Your task to perform on an android device: open app "DuckDuckGo Privacy Browser" (install if not already installed) and enter user name: "cleaving@outlook.com" and password: "freighters" Image 0: 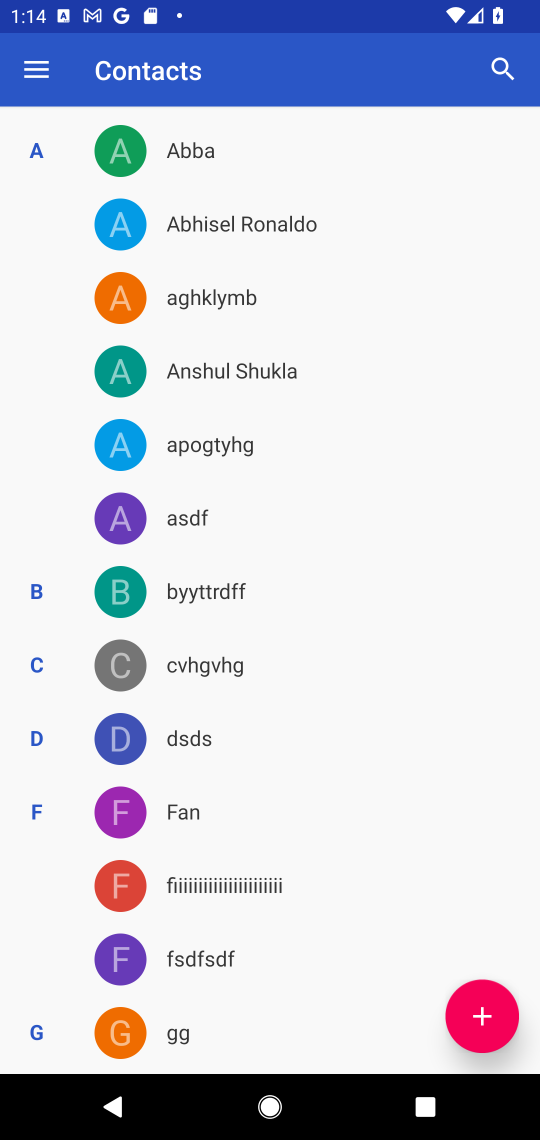
Step 0: press home button
Your task to perform on an android device: open app "DuckDuckGo Privacy Browser" (install if not already installed) and enter user name: "cleaving@outlook.com" and password: "freighters" Image 1: 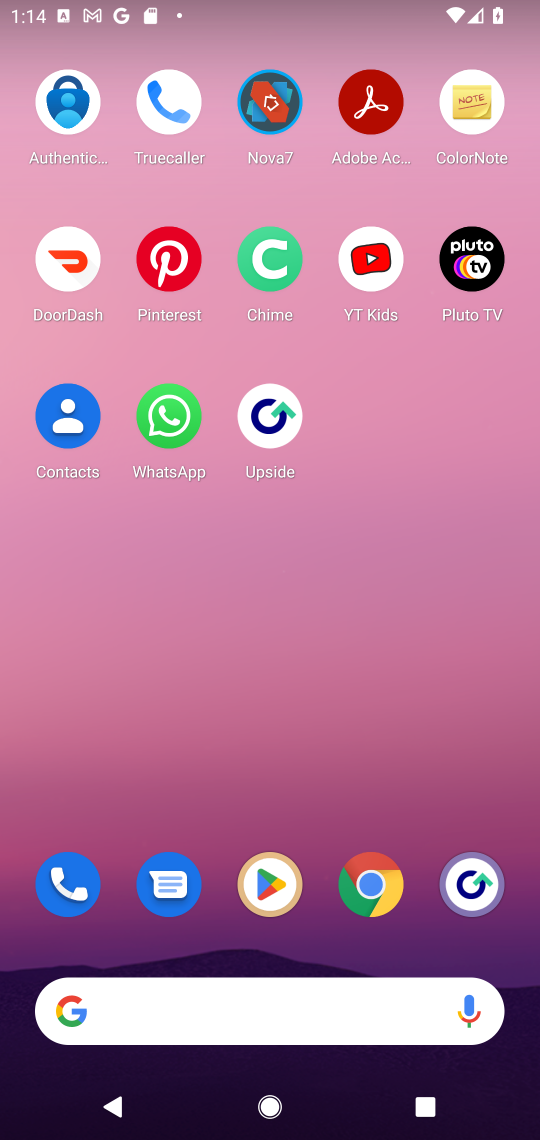
Step 1: drag from (262, 998) to (224, 251)
Your task to perform on an android device: open app "DuckDuckGo Privacy Browser" (install if not already installed) and enter user name: "cleaving@outlook.com" and password: "freighters" Image 2: 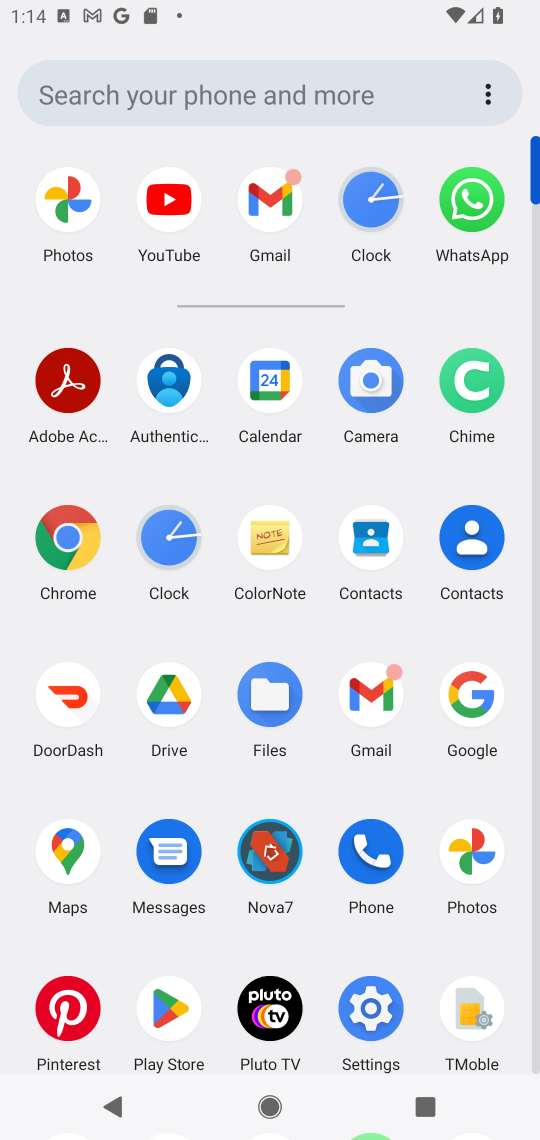
Step 2: click (166, 1007)
Your task to perform on an android device: open app "DuckDuckGo Privacy Browser" (install if not already installed) and enter user name: "cleaving@outlook.com" and password: "freighters" Image 3: 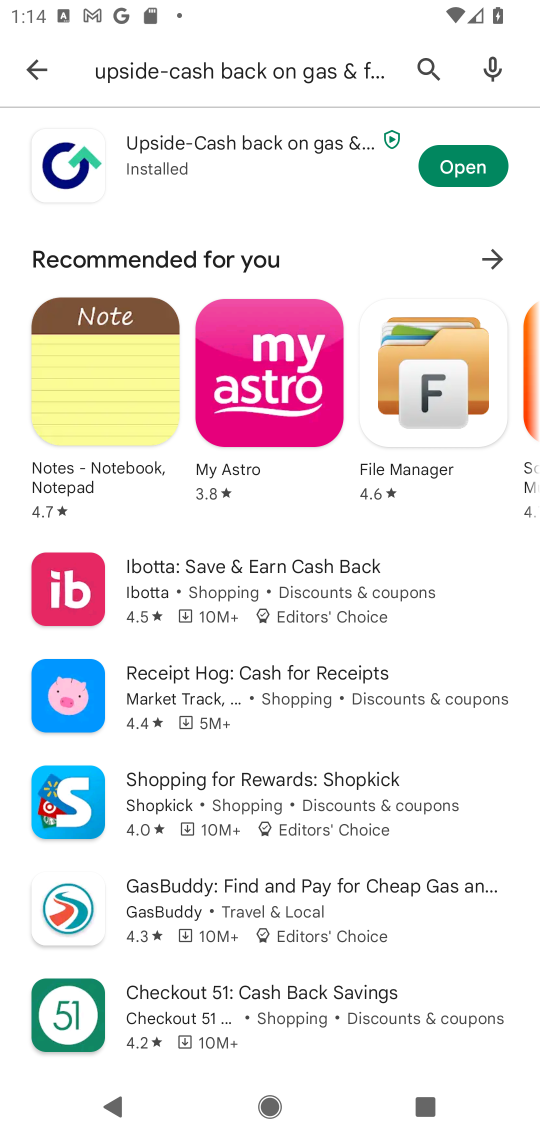
Step 3: press back button
Your task to perform on an android device: open app "DuckDuckGo Privacy Browser" (install if not already installed) and enter user name: "cleaving@outlook.com" and password: "freighters" Image 4: 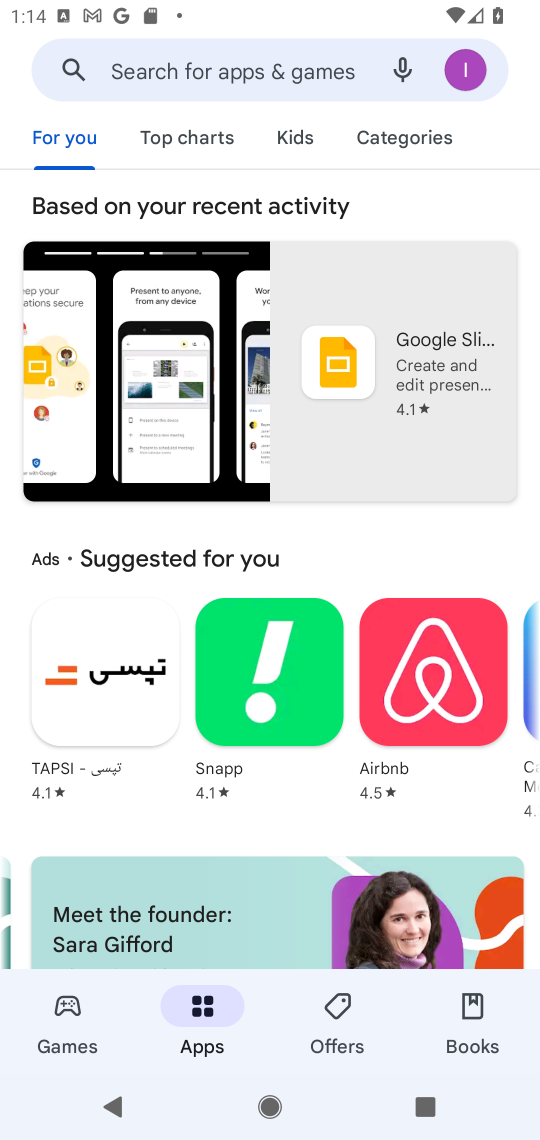
Step 4: click (256, 66)
Your task to perform on an android device: open app "DuckDuckGo Privacy Browser" (install if not already installed) and enter user name: "cleaving@outlook.com" and password: "freighters" Image 5: 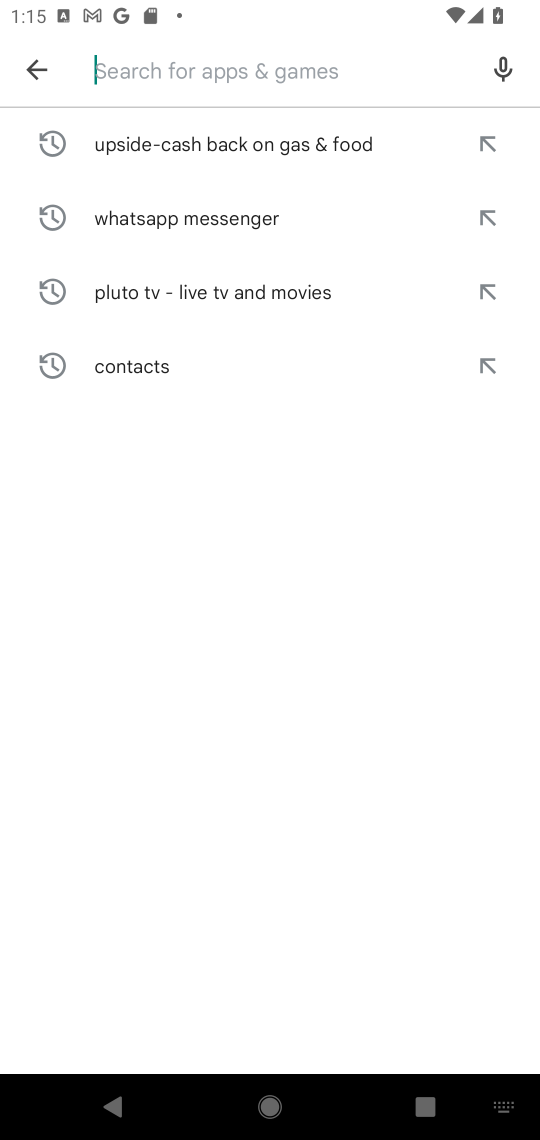
Step 5: type "DuckDuckGo Privacy Browser"
Your task to perform on an android device: open app "DuckDuckGo Privacy Browser" (install if not already installed) and enter user name: "cleaving@outlook.com" and password: "freighters" Image 6: 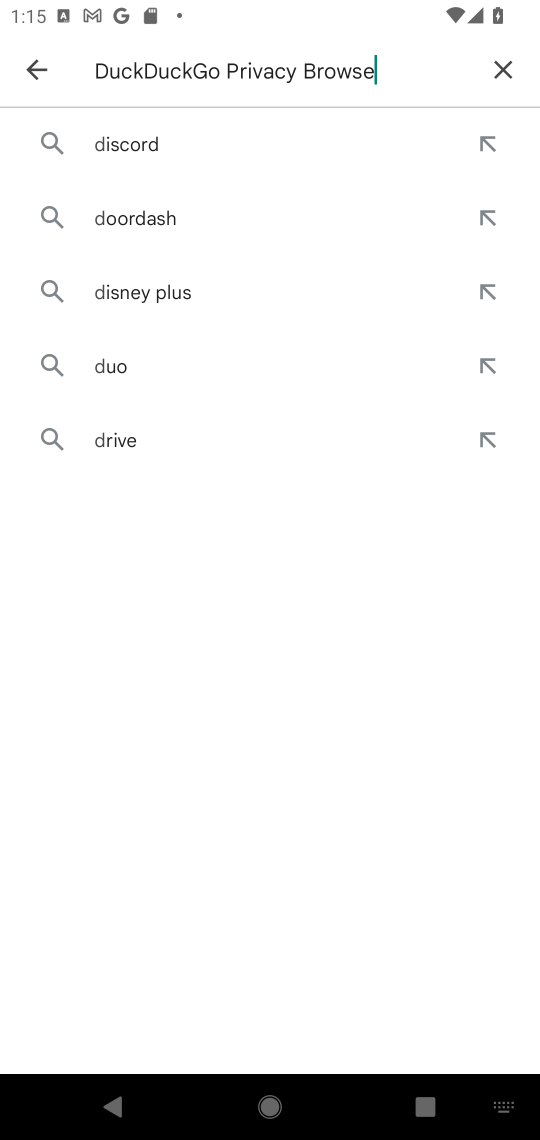
Step 6: type ""
Your task to perform on an android device: open app "DuckDuckGo Privacy Browser" (install if not already installed) and enter user name: "cleaving@outlook.com" and password: "freighters" Image 7: 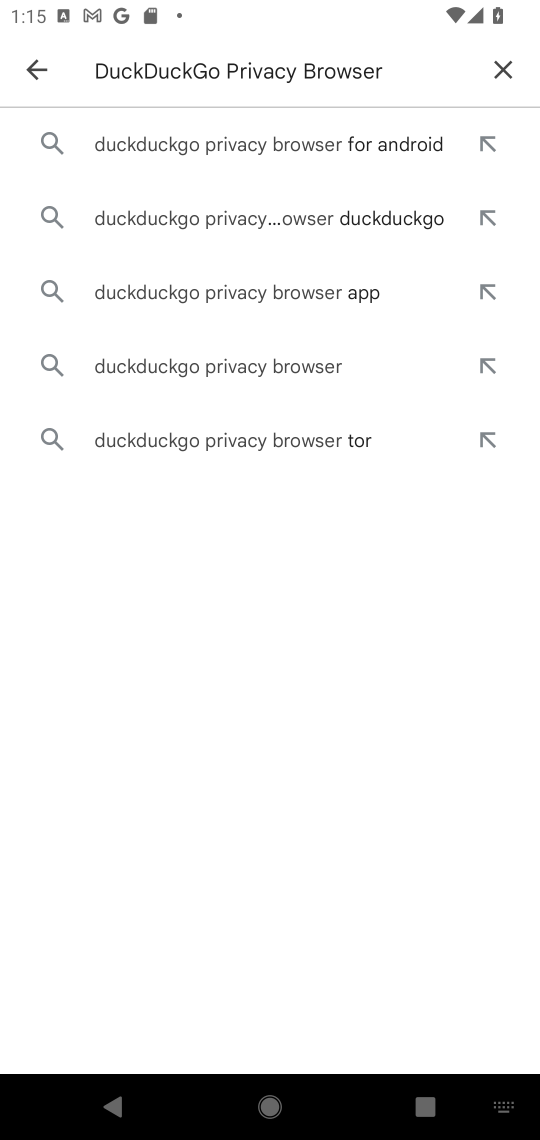
Step 7: click (217, 145)
Your task to perform on an android device: open app "DuckDuckGo Privacy Browser" (install if not already installed) and enter user name: "cleaving@outlook.com" and password: "freighters" Image 8: 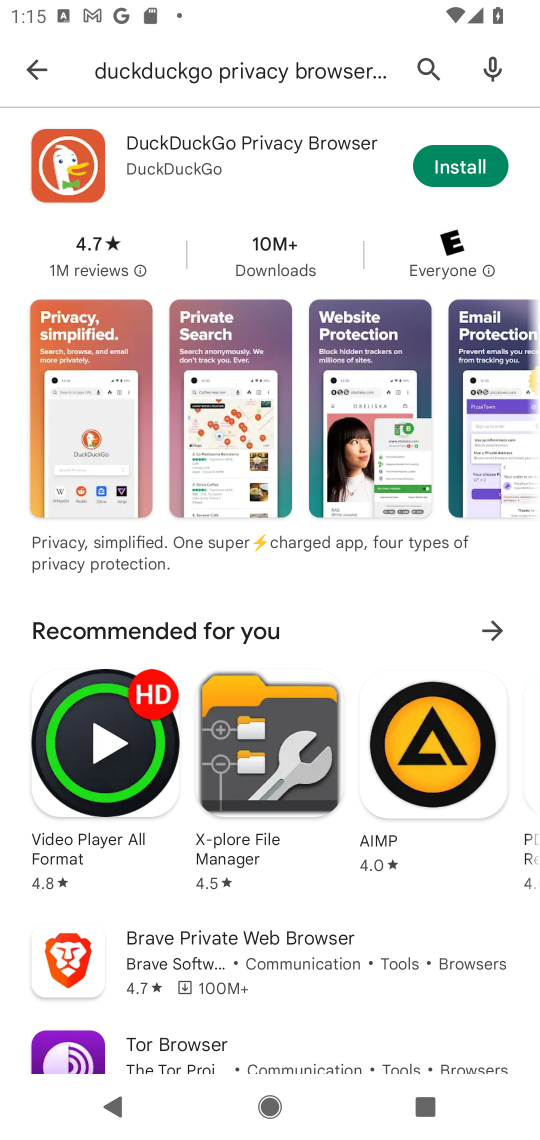
Step 8: click (484, 156)
Your task to perform on an android device: open app "DuckDuckGo Privacy Browser" (install if not already installed) and enter user name: "cleaving@outlook.com" and password: "freighters" Image 9: 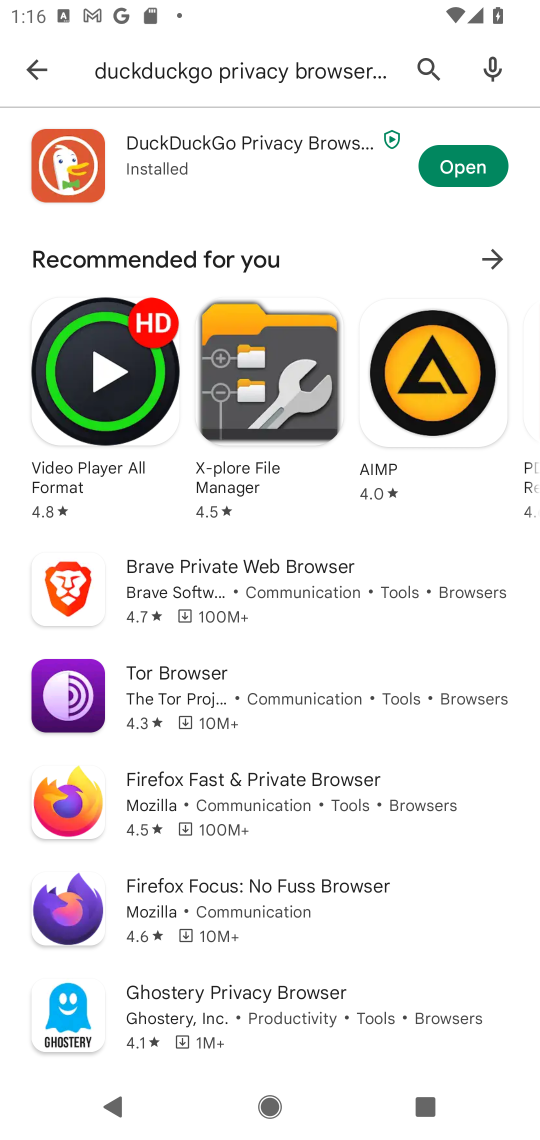
Step 9: click (466, 176)
Your task to perform on an android device: open app "DuckDuckGo Privacy Browser" (install if not already installed) and enter user name: "cleaving@outlook.com" and password: "freighters" Image 10: 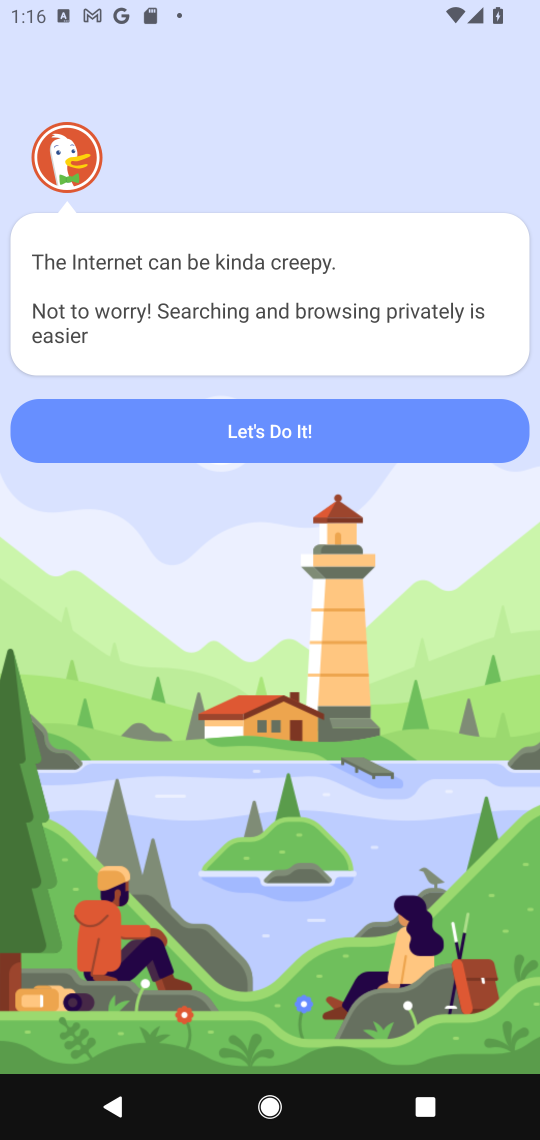
Step 10: click (290, 441)
Your task to perform on an android device: open app "DuckDuckGo Privacy Browser" (install if not already installed) and enter user name: "cleaving@outlook.com" and password: "freighters" Image 11: 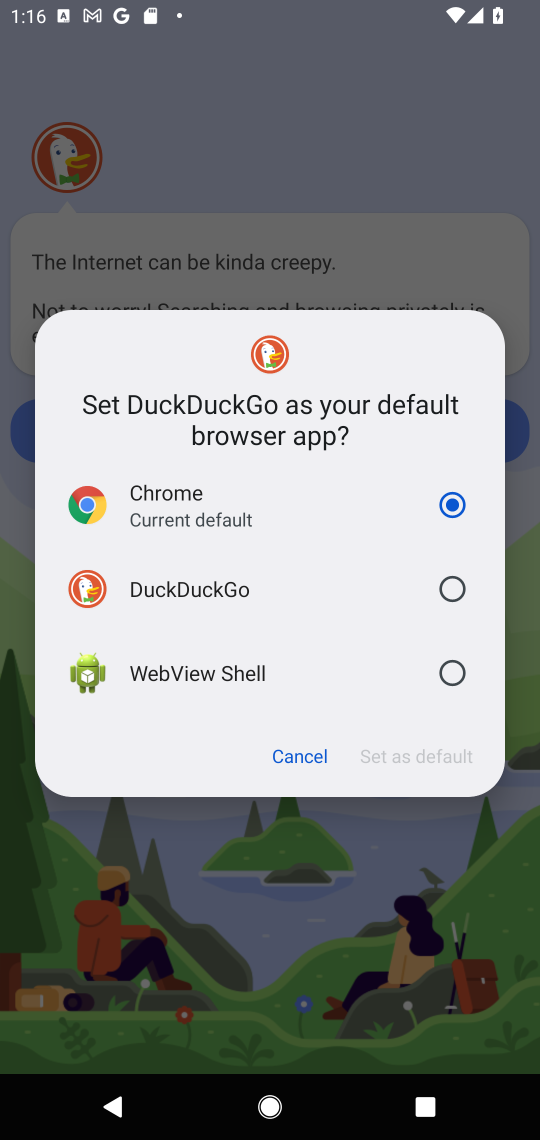
Step 11: click (455, 506)
Your task to perform on an android device: open app "DuckDuckGo Privacy Browser" (install if not already installed) and enter user name: "cleaving@outlook.com" and password: "freighters" Image 12: 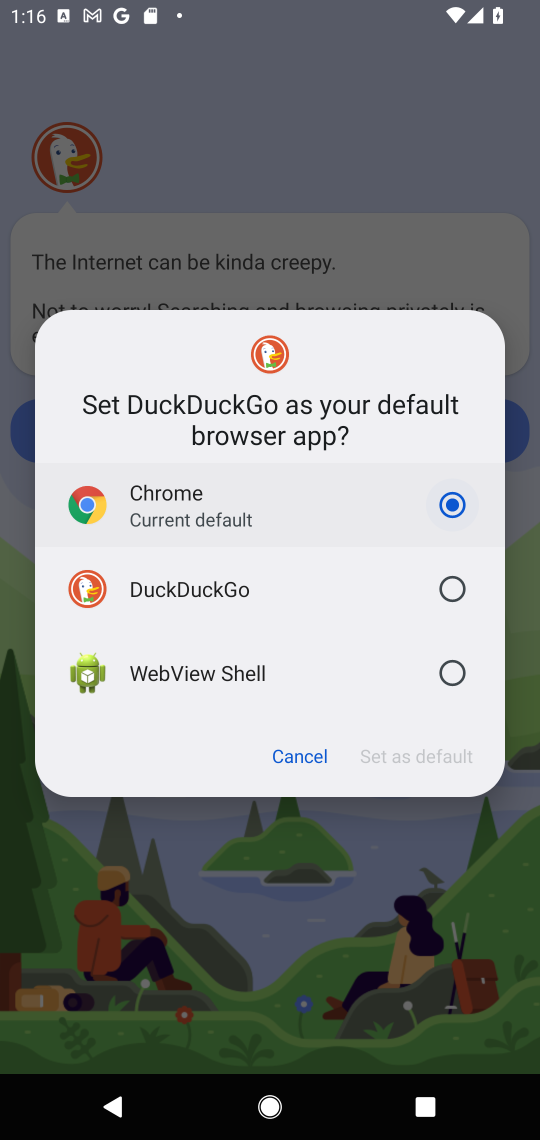
Step 12: click (470, 592)
Your task to perform on an android device: open app "DuckDuckGo Privacy Browser" (install if not already installed) and enter user name: "cleaving@outlook.com" and password: "freighters" Image 13: 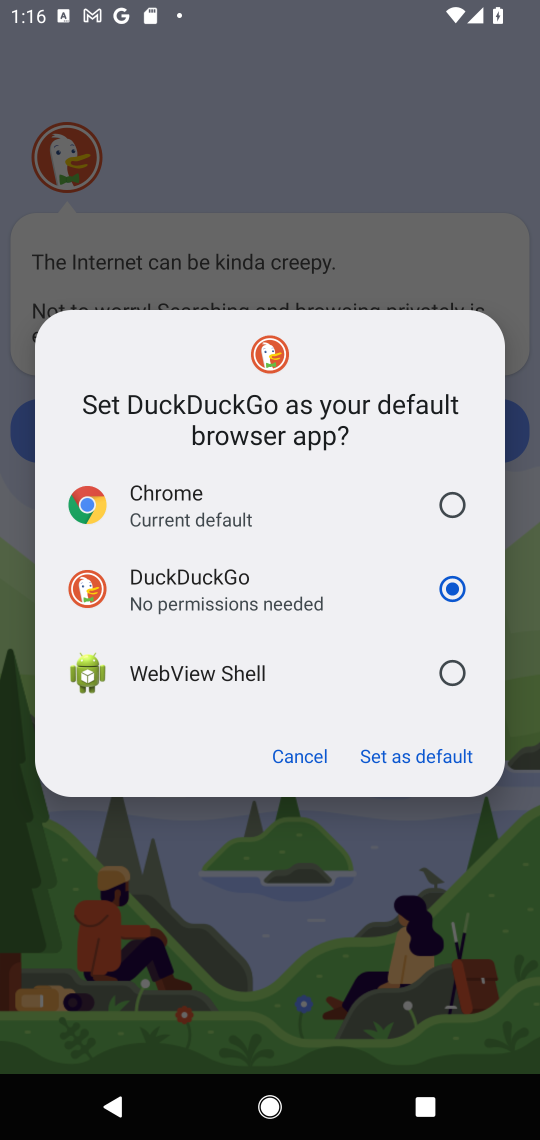
Step 13: click (441, 764)
Your task to perform on an android device: open app "DuckDuckGo Privacy Browser" (install if not already installed) and enter user name: "cleaving@outlook.com" and password: "freighters" Image 14: 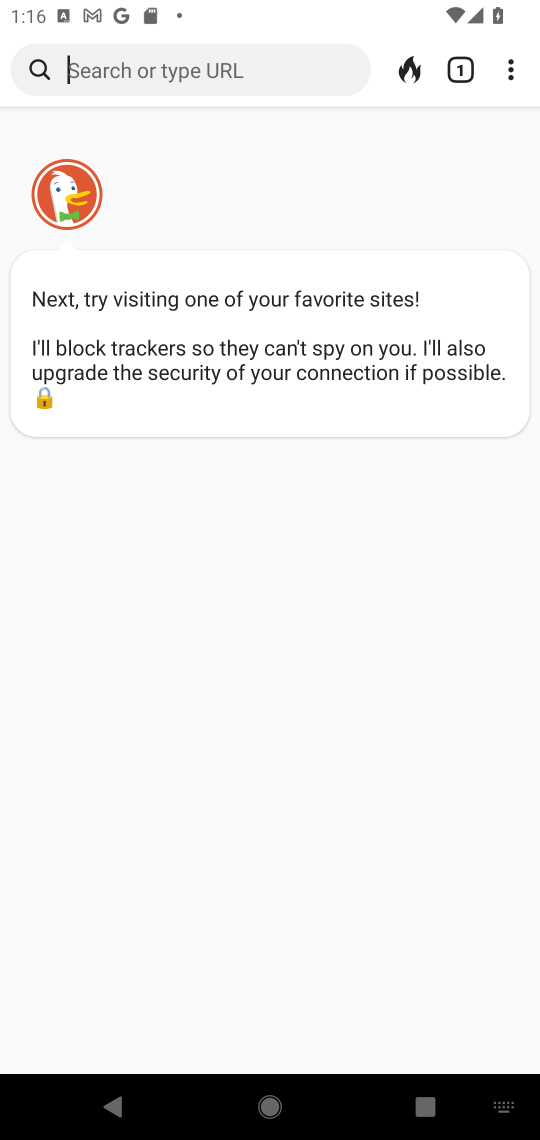
Step 14: task complete